Your task to perform on an android device: delete browsing data in the chrome app Image 0: 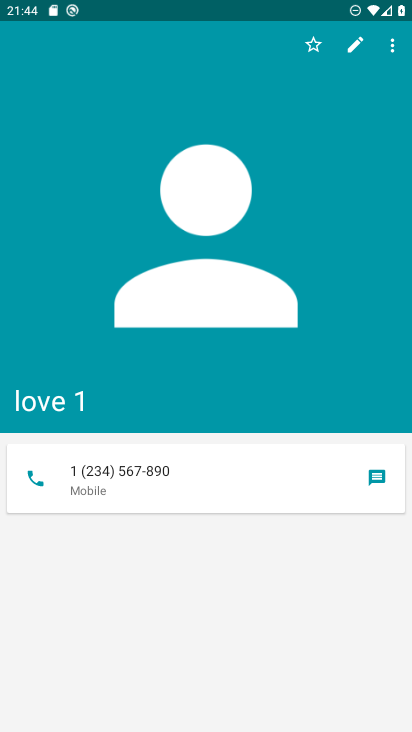
Step 0: press home button
Your task to perform on an android device: delete browsing data in the chrome app Image 1: 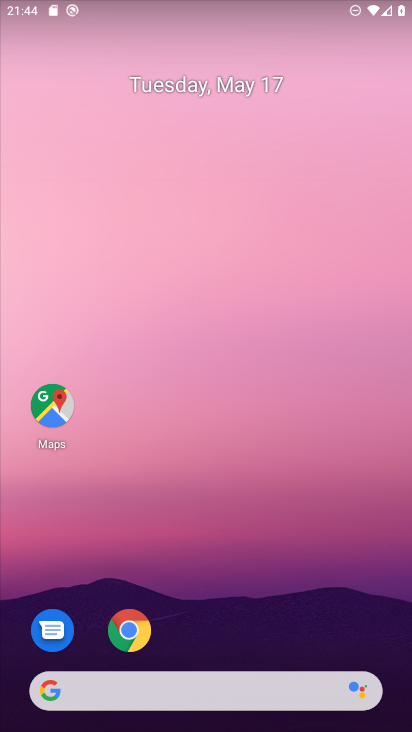
Step 1: drag from (356, 575) to (355, 191)
Your task to perform on an android device: delete browsing data in the chrome app Image 2: 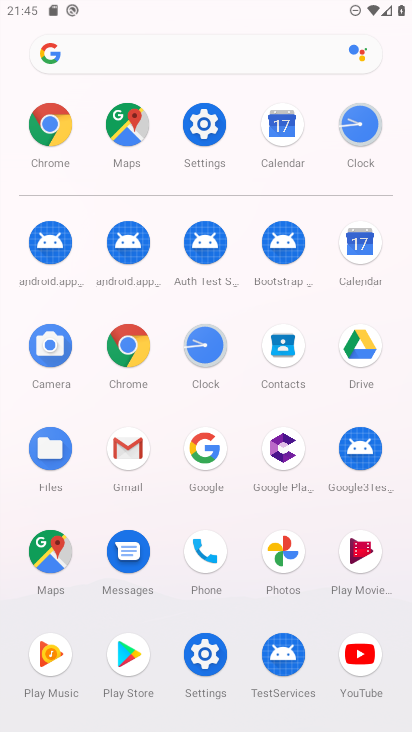
Step 2: click (133, 348)
Your task to perform on an android device: delete browsing data in the chrome app Image 3: 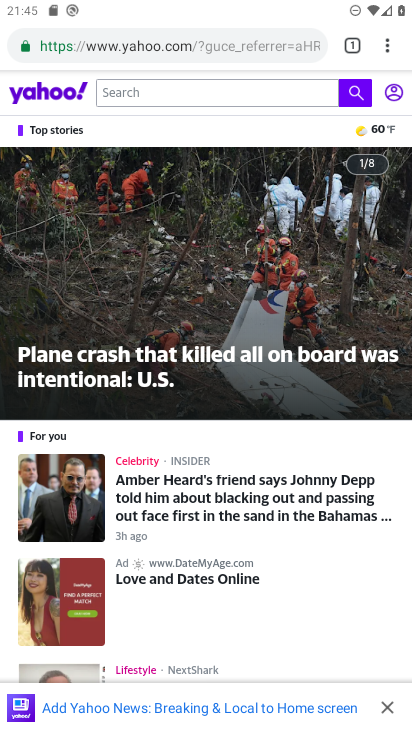
Step 3: click (387, 48)
Your task to perform on an android device: delete browsing data in the chrome app Image 4: 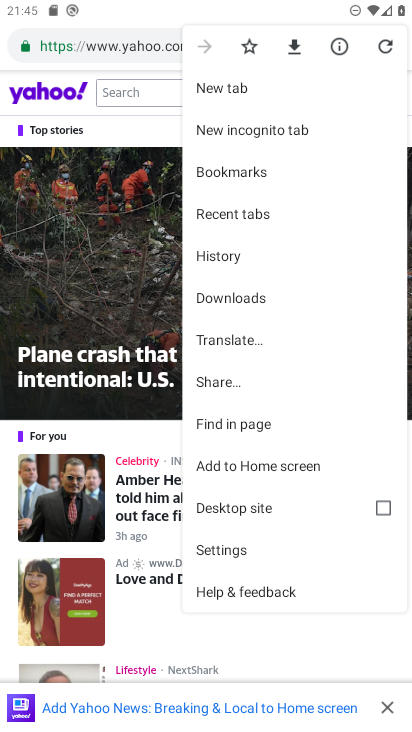
Step 4: click (253, 561)
Your task to perform on an android device: delete browsing data in the chrome app Image 5: 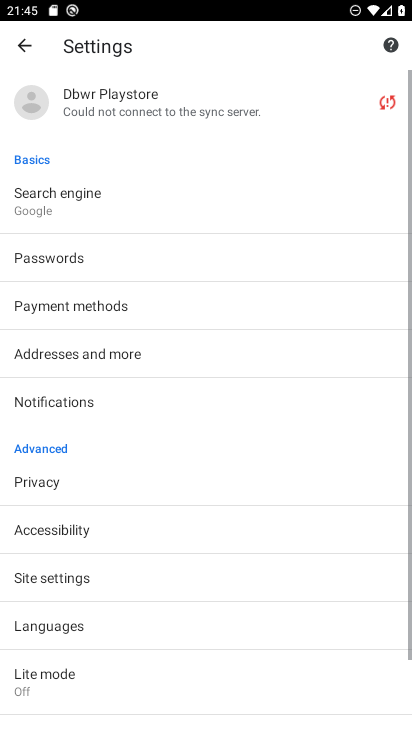
Step 5: drag from (263, 597) to (276, 498)
Your task to perform on an android device: delete browsing data in the chrome app Image 6: 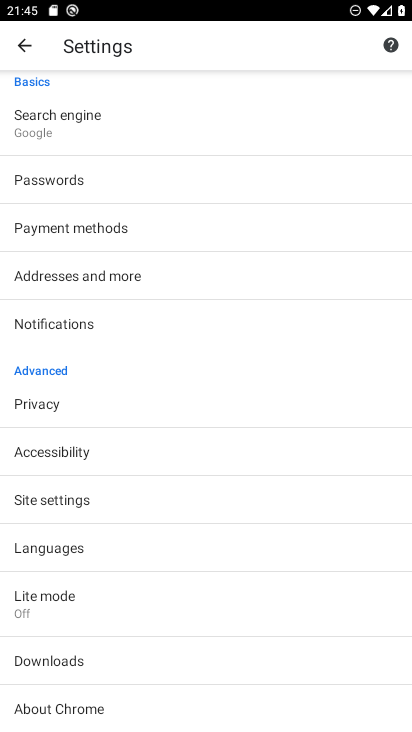
Step 6: drag from (288, 663) to (296, 557)
Your task to perform on an android device: delete browsing data in the chrome app Image 7: 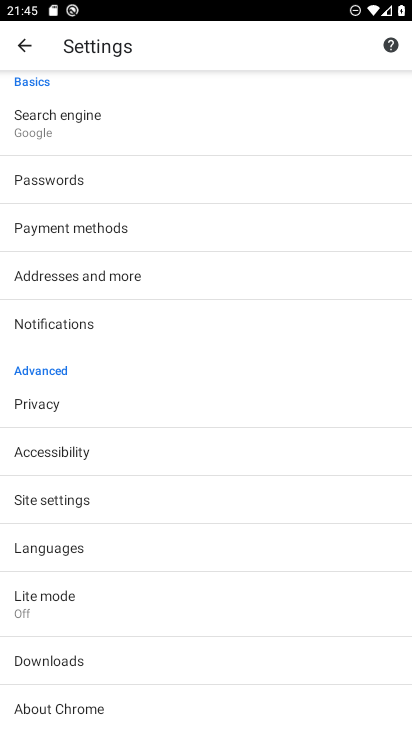
Step 7: drag from (289, 365) to (288, 451)
Your task to perform on an android device: delete browsing data in the chrome app Image 8: 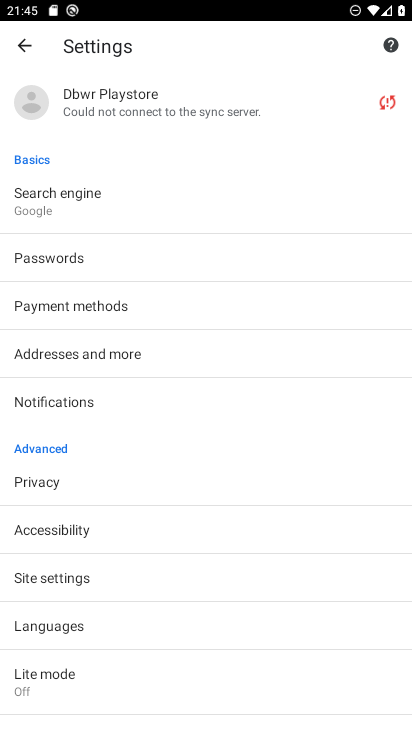
Step 8: drag from (278, 271) to (273, 407)
Your task to perform on an android device: delete browsing data in the chrome app Image 9: 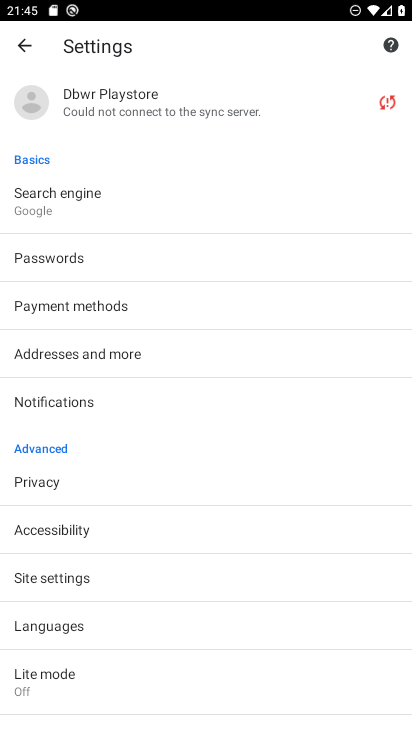
Step 9: click (122, 480)
Your task to perform on an android device: delete browsing data in the chrome app Image 10: 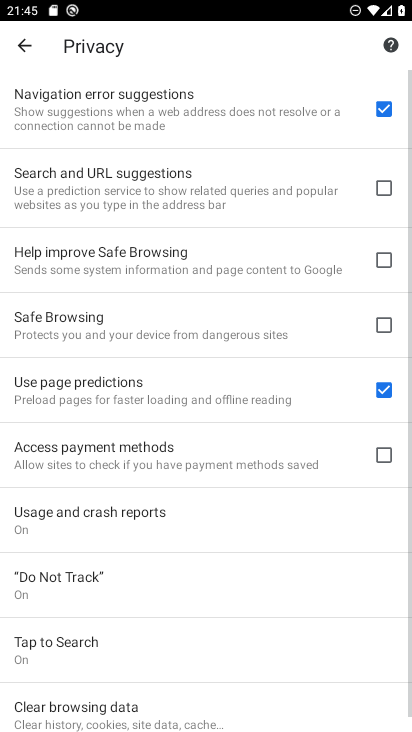
Step 10: drag from (263, 597) to (268, 513)
Your task to perform on an android device: delete browsing data in the chrome app Image 11: 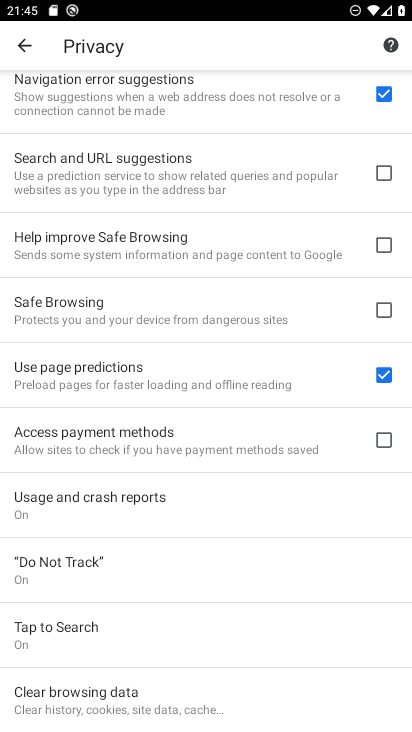
Step 11: click (247, 711)
Your task to perform on an android device: delete browsing data in the chrome app Image 12: 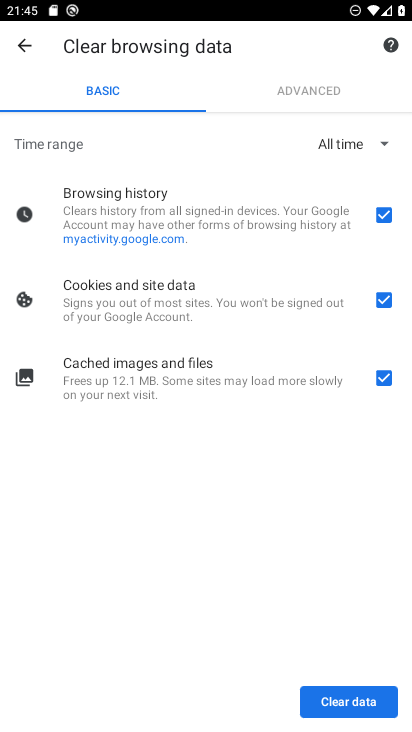
Step 12: click (362, 694)
Your task to perform on an android device: delete browsing data in the chrome app Image 13: 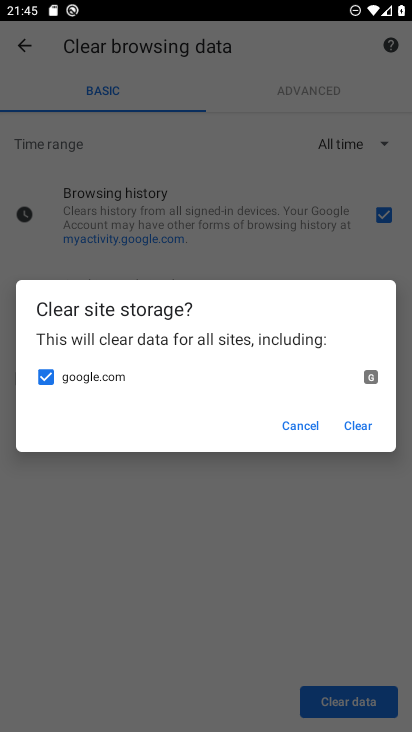
Step 13: click (364, 428)
Your task to perform on an android device: delete browsing data in the chrome app Image 14: 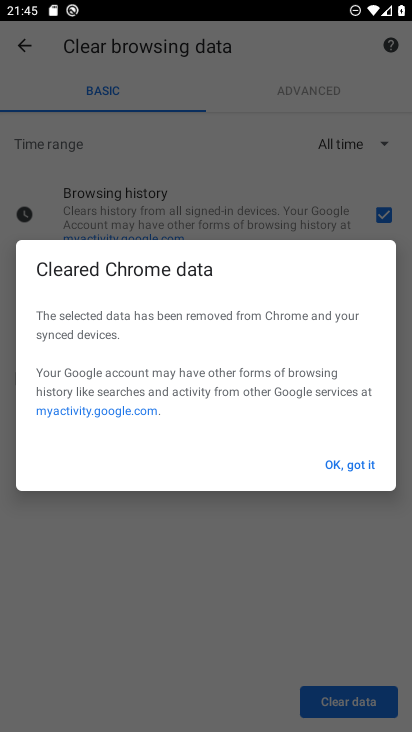
Step 14: click (372, 459)
Your task to perform on an android device: delete browsing data in the chrome app Image 15: 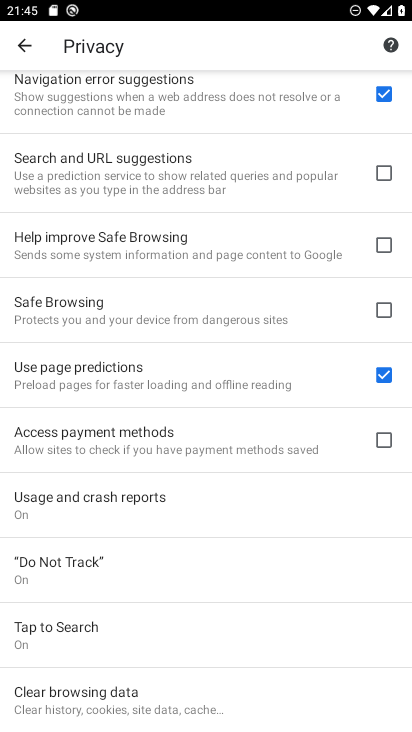
Step 15: task complete